Your task to perform on an android device: turn off smart reply in the gmail app Image 0: 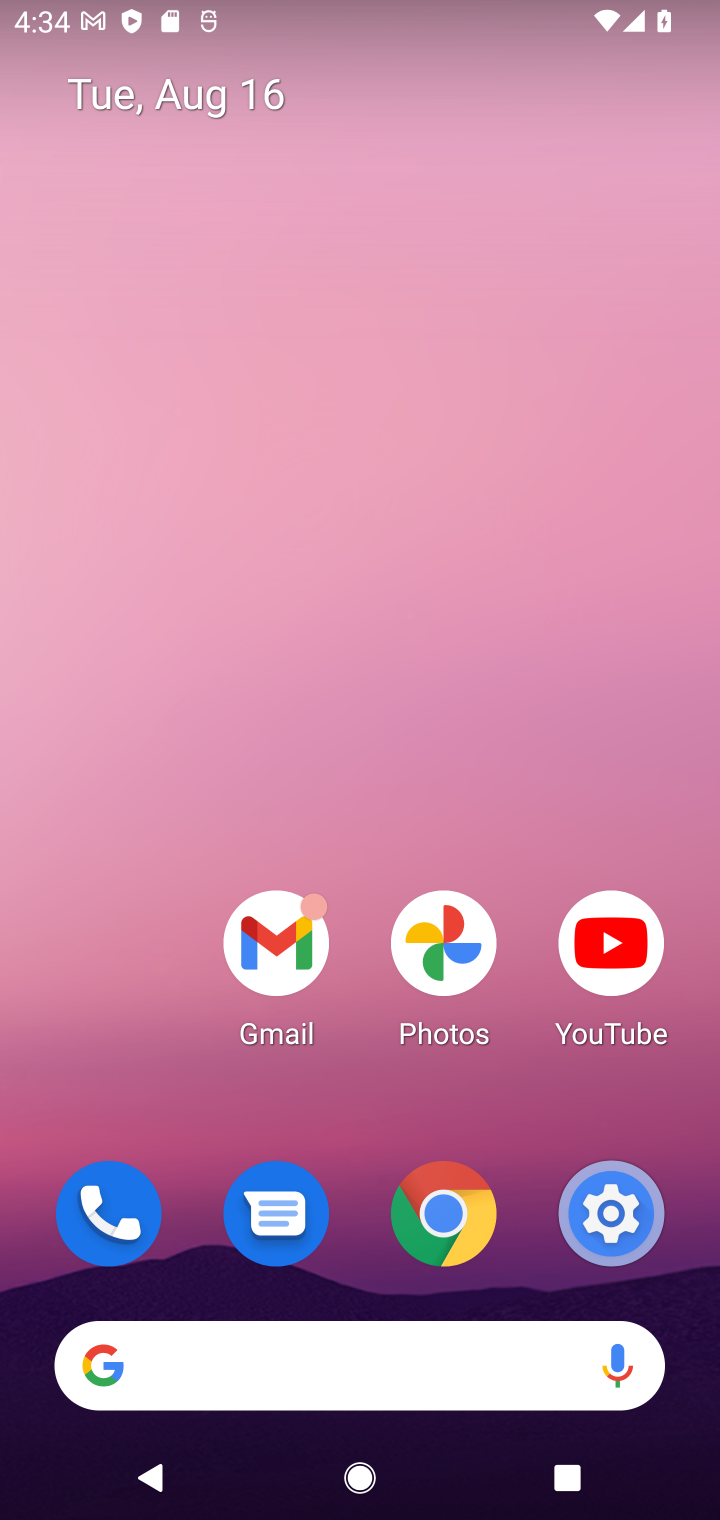
Step 0: drag from (334, 750) to (255, 2)
Your task to perform on an android device: turn off smart reply in the gmail app Image 1: 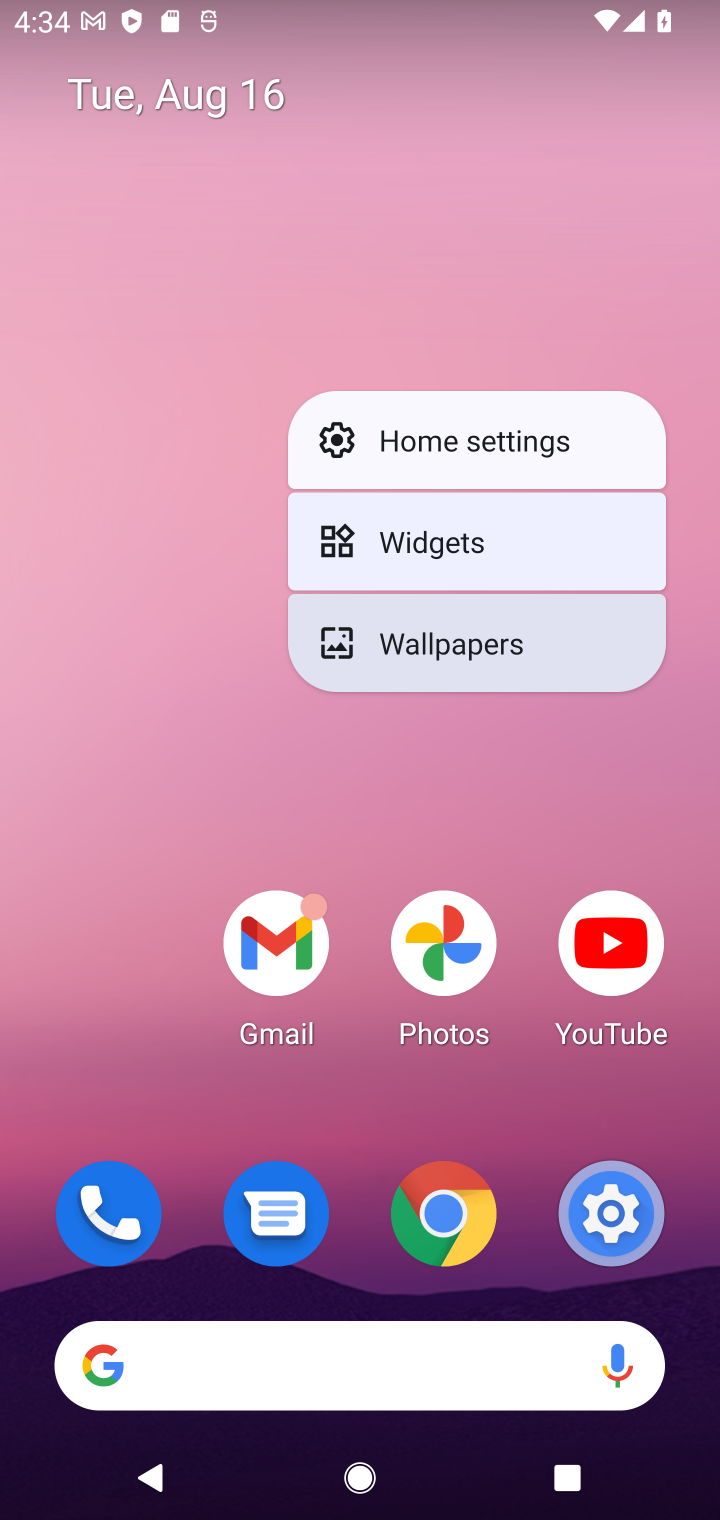
Step 1: click (56, 510)
Your task to perform on an android device: turn off smart reply in the gmail app Image 2: 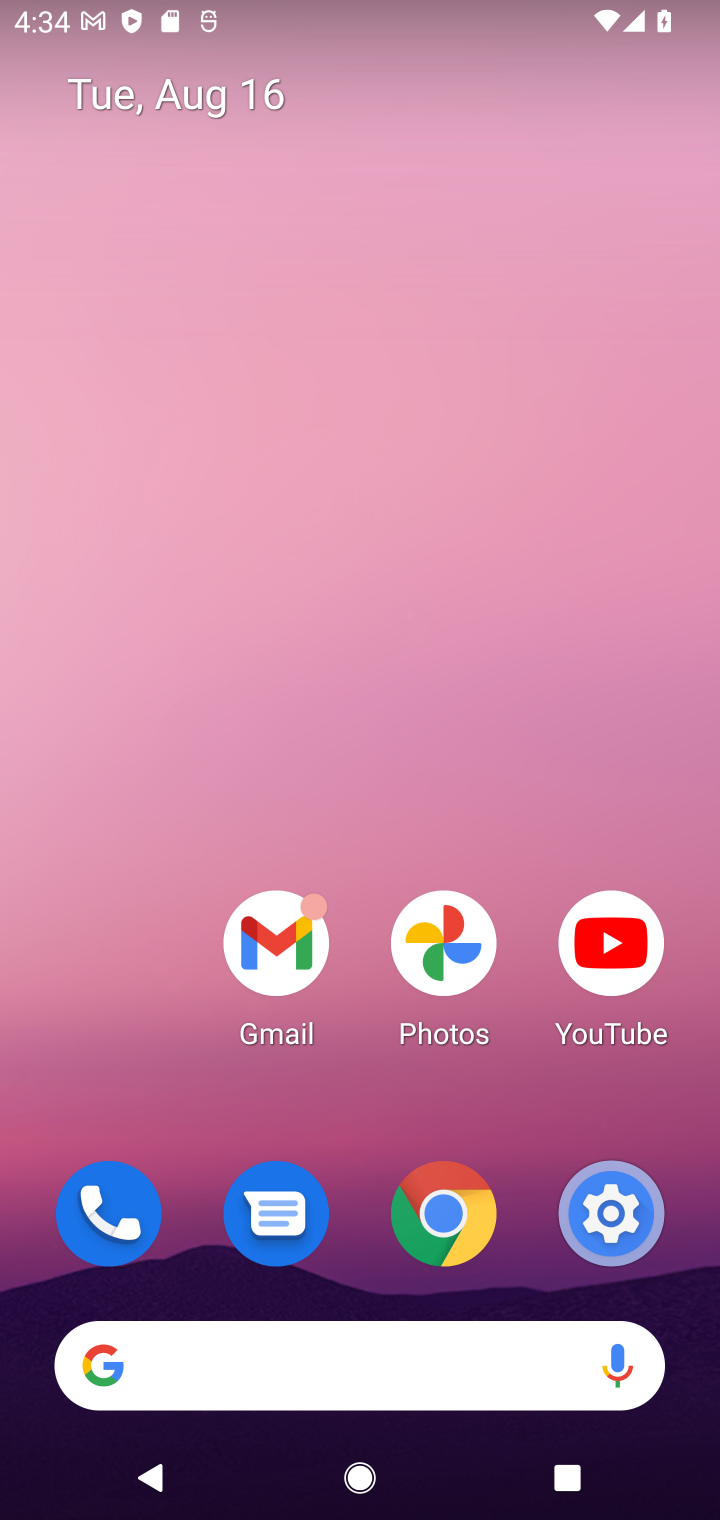
Step 2: drag from (198, 1106) to (103, 186)
Your task to perform on an android device: turn off smart reply in the gmail app Image 3: 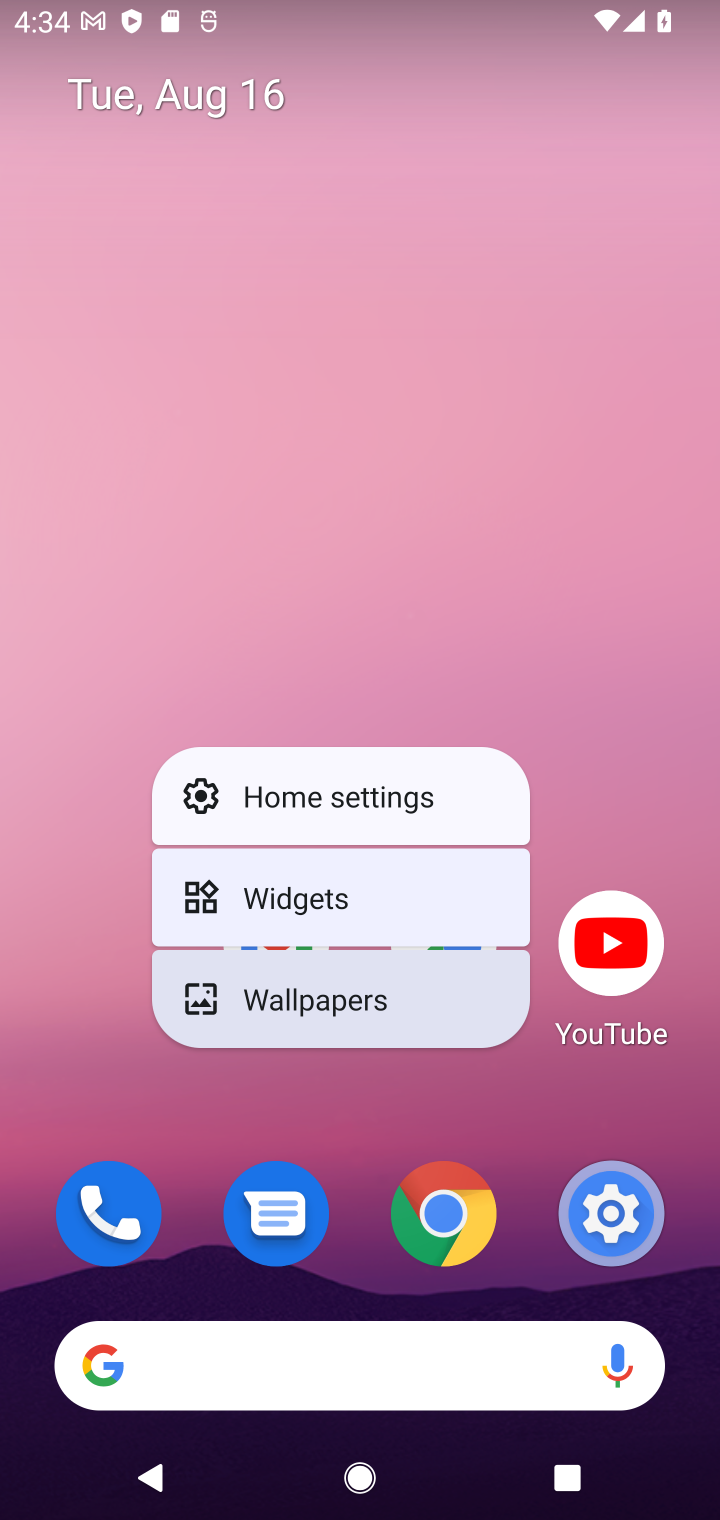
Step 3: click (112, 445)
Your task to perform on an android device: turn off smart reply in the gmail app Image 4: 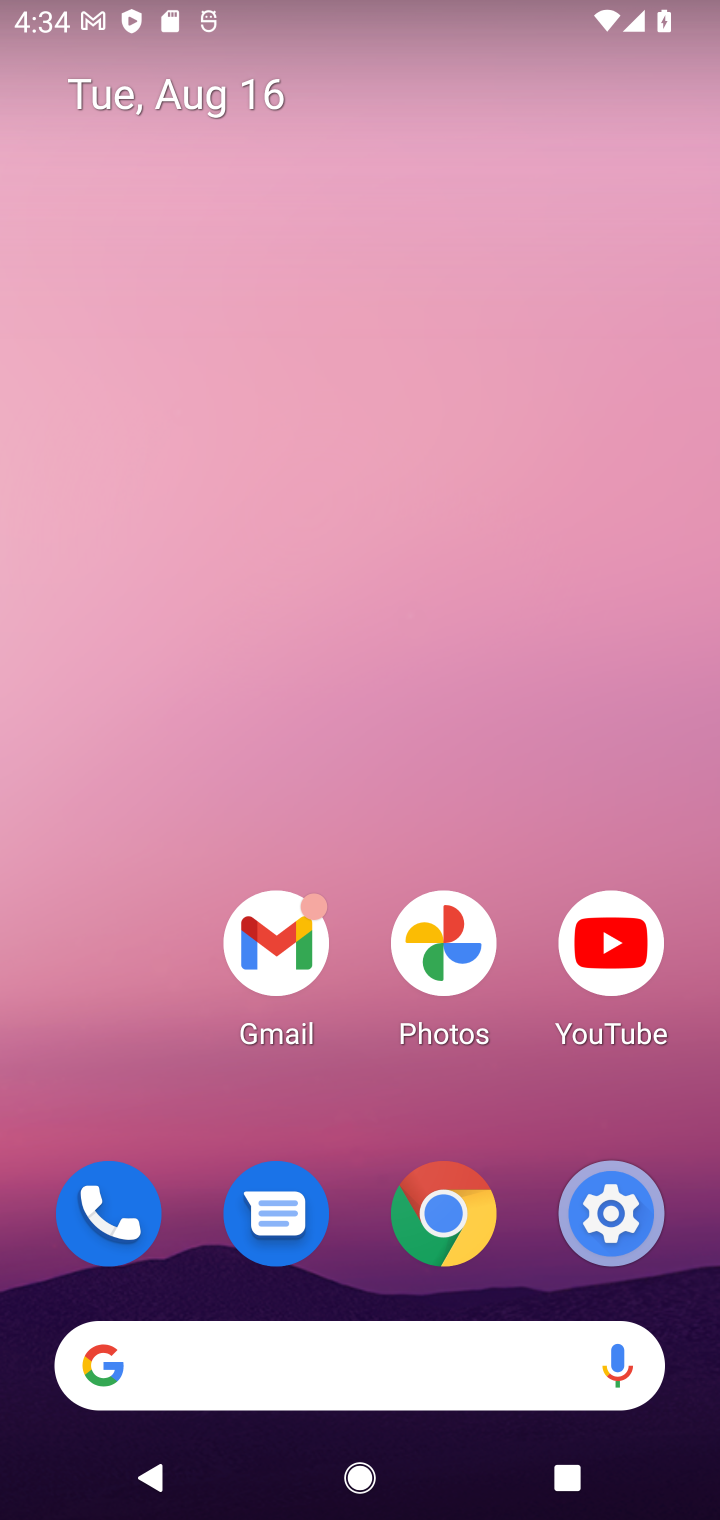
Step 4: drag from (209, 1027) to (224, 276)
Your task to perform on an android device: turn off smart reply in the gmail app Image 5: 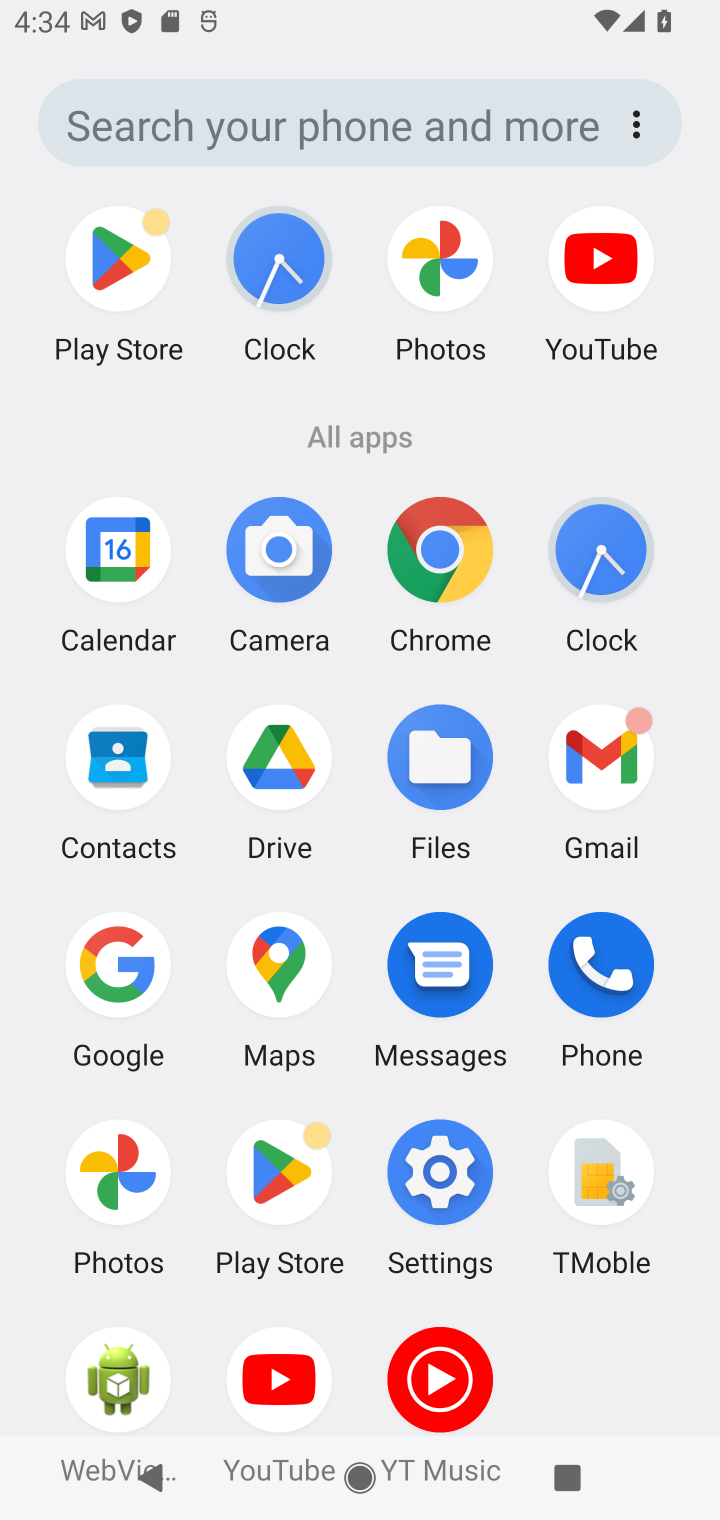
Step 5: click (590, 753)
Your task to perform on an android device: turn off smart reply in the gmail app Image 6: 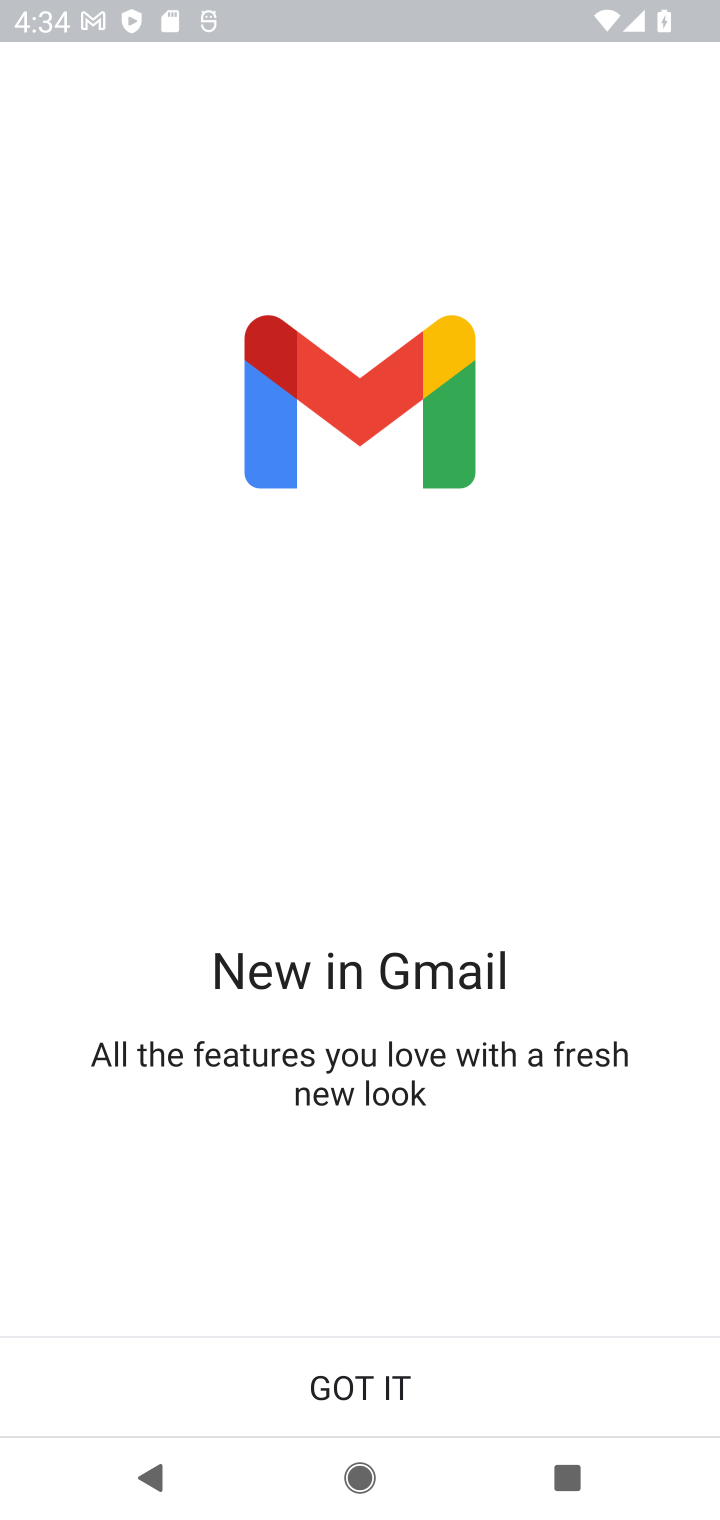
Step 6: click (461, 1385)
Your task to perform on an android device: turn off smart reply in the gmail app Image 7: 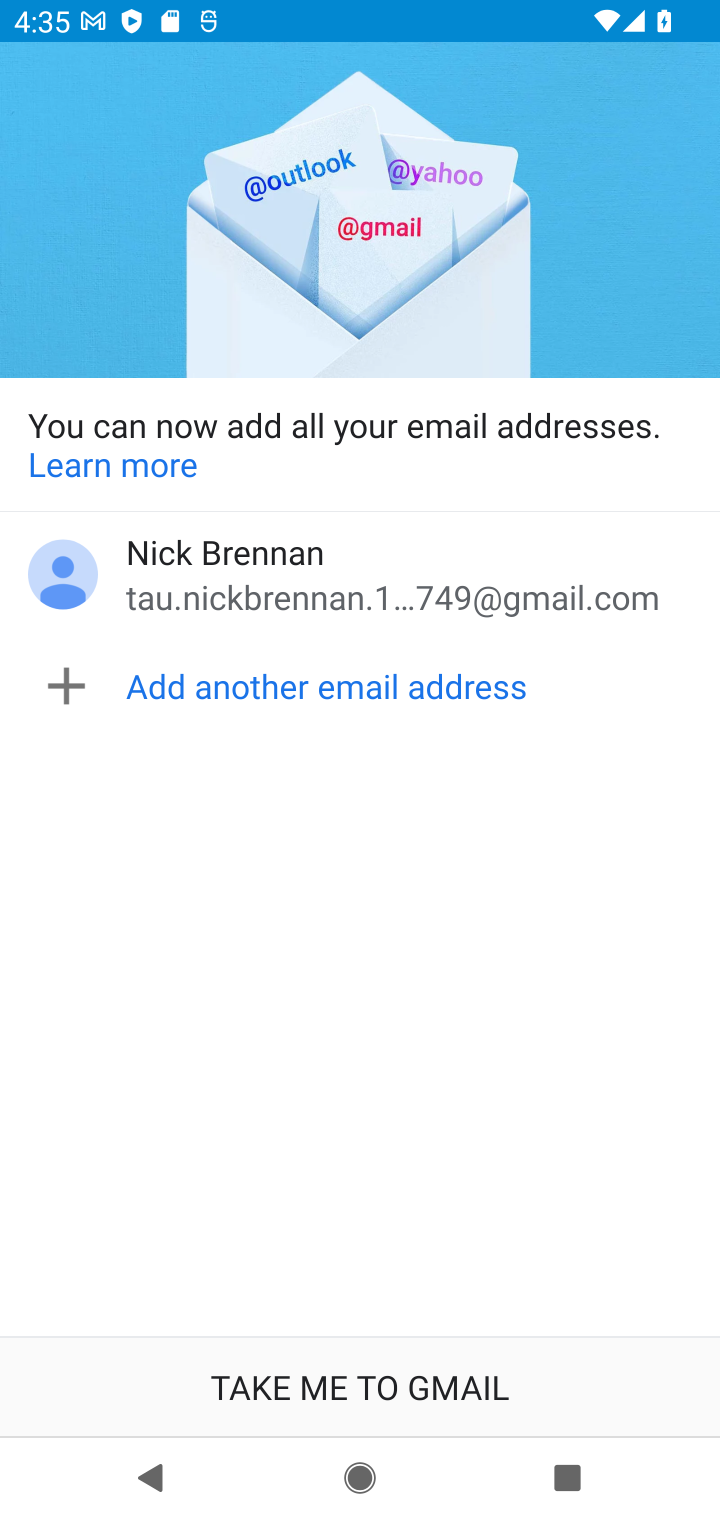
Step 7: click (396, 1371)
Your task to perform on an android device: turn off smart reply in the gmail app Image 8: 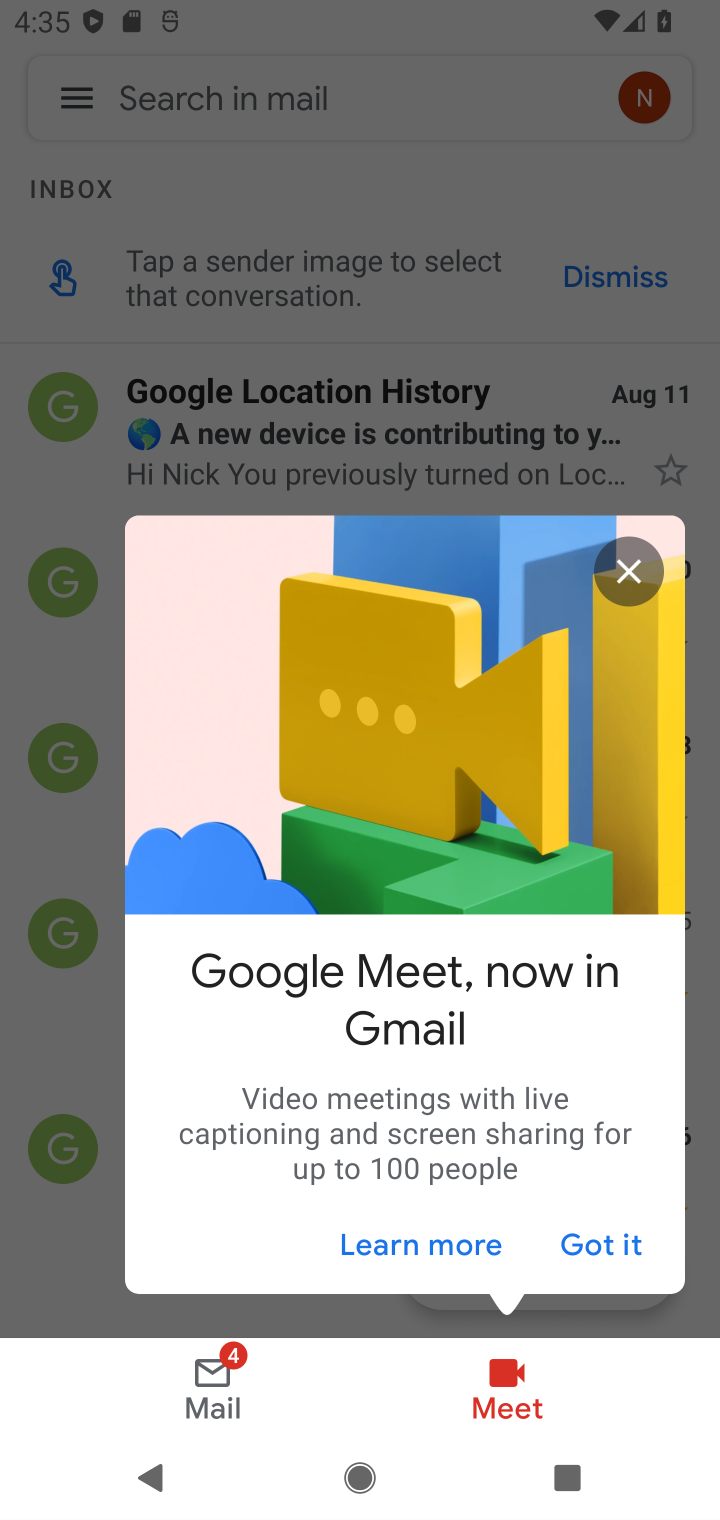
Step 8: click (632, 580)
Your task to perform on an android device: turn off smart reply in the gmail app Image 9: 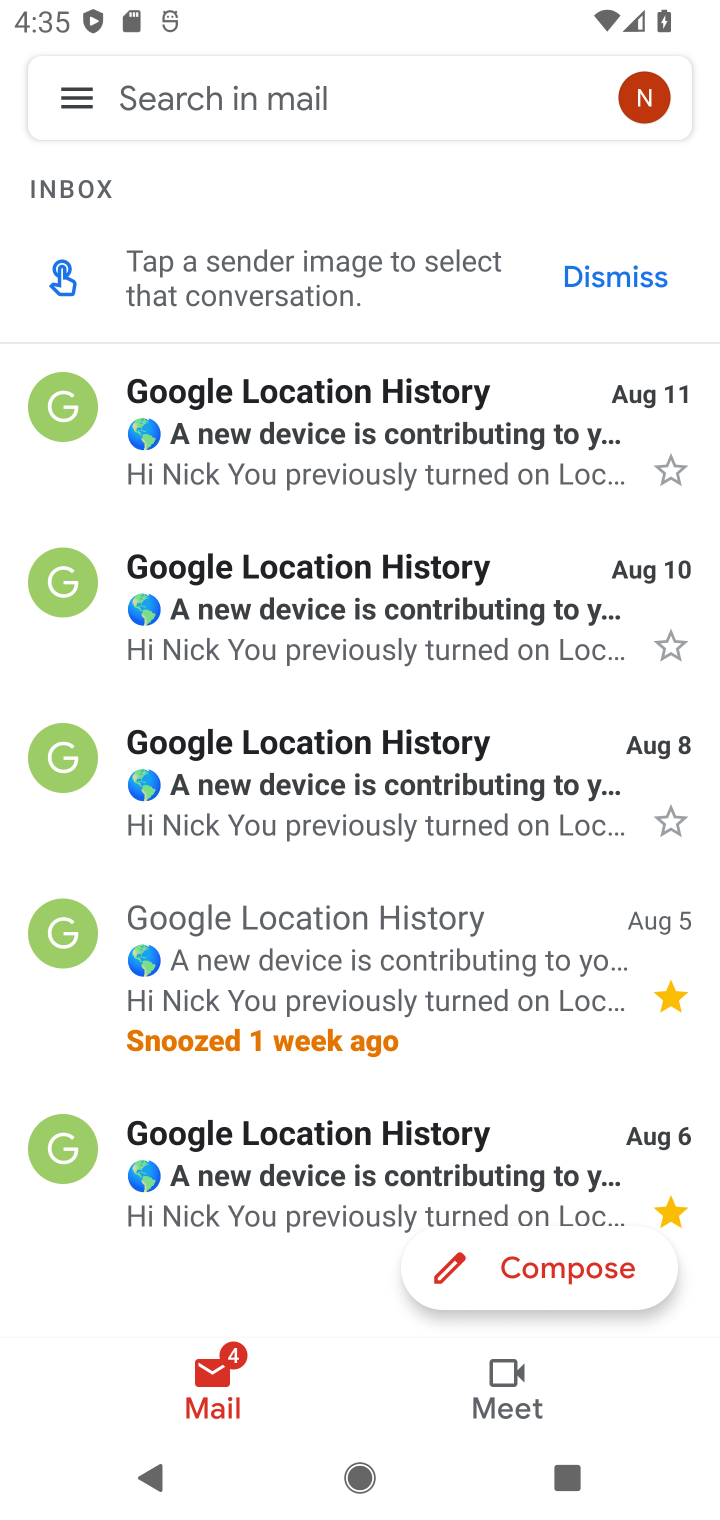
Step 9: click (64, 99)
Your task to perform on an android device: turn off smart reply in the gmail app Image 10: 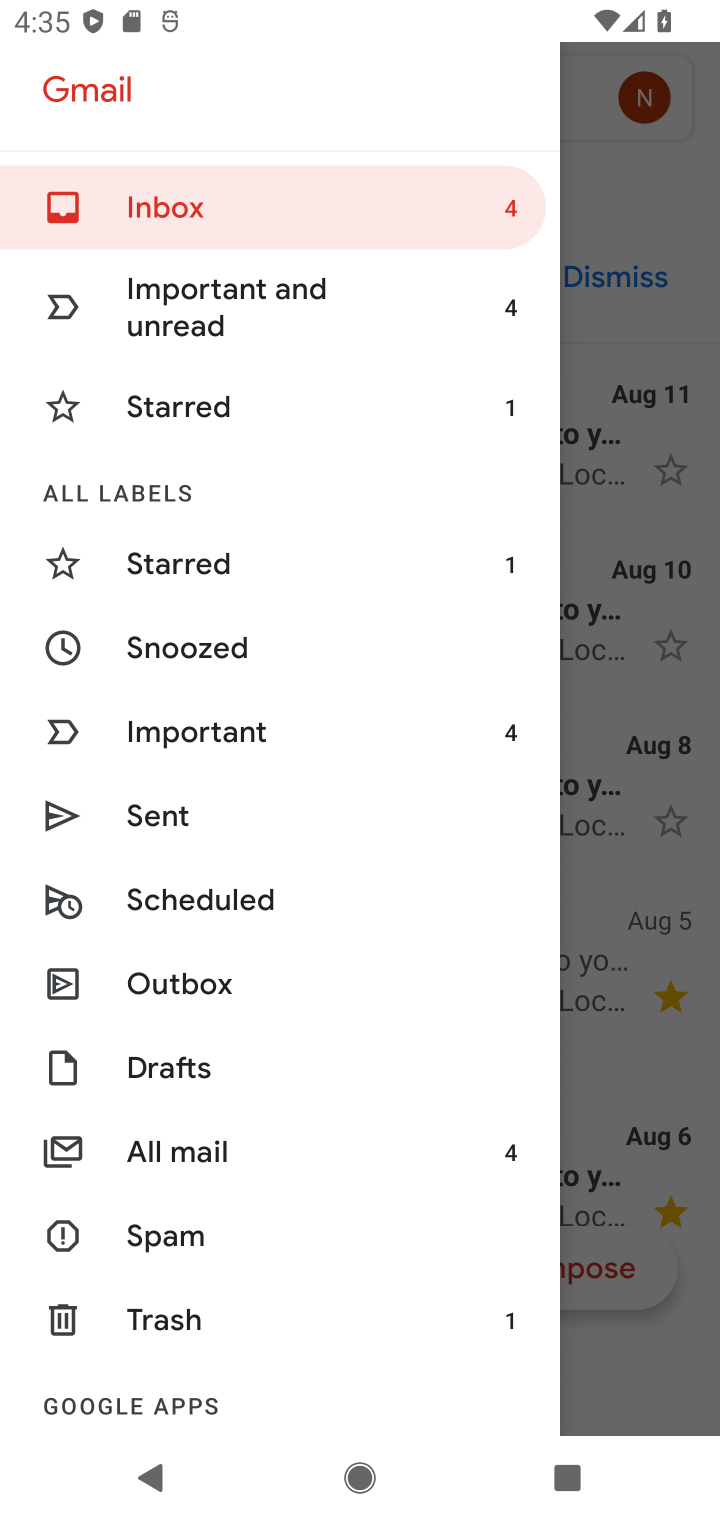
Step 10: drag from (245, 1344) to (257, 472)
Your task to perform on an android device: turn off smart reply in the gmail app Image 11: 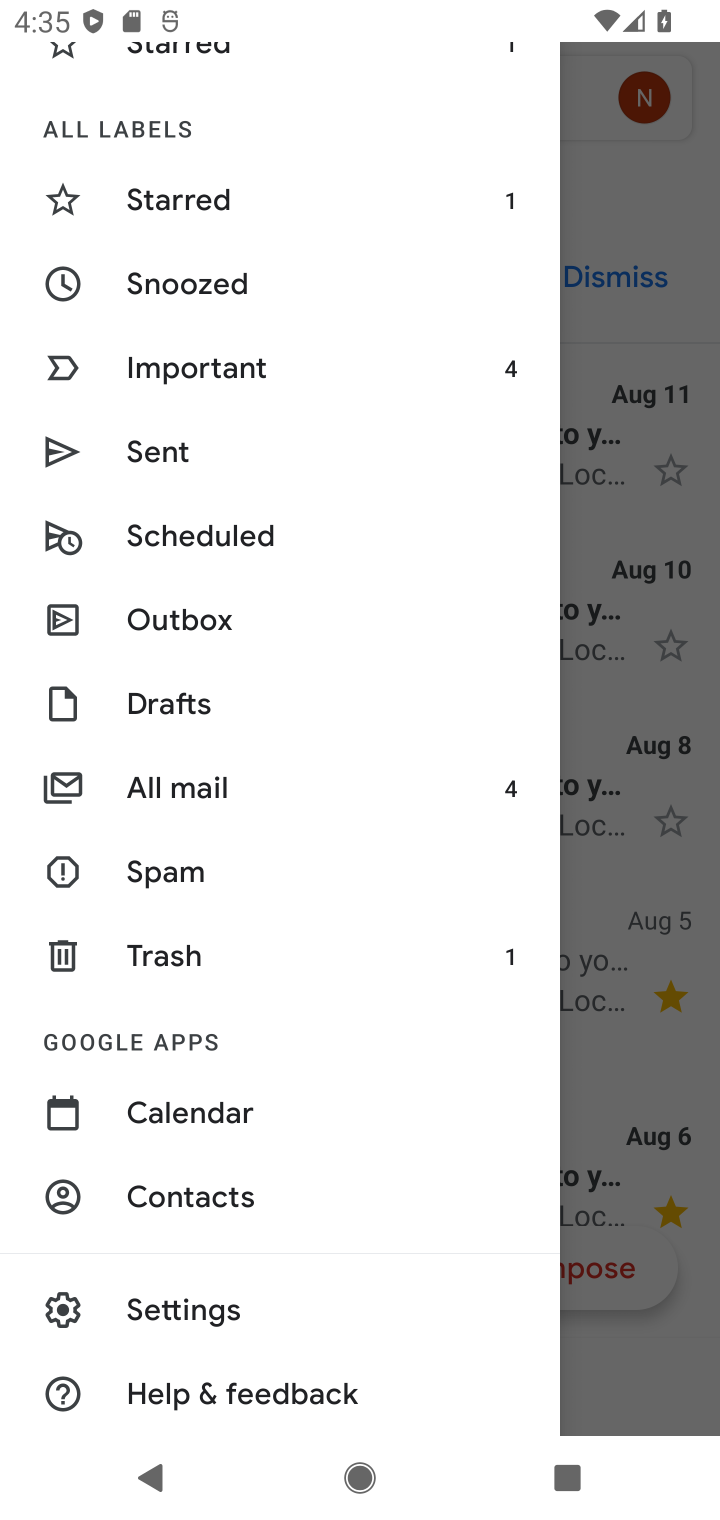
Step 11: click (176, 1326)
Your task to perform on an android device: turn off smart reply in the gmail app Image 12: 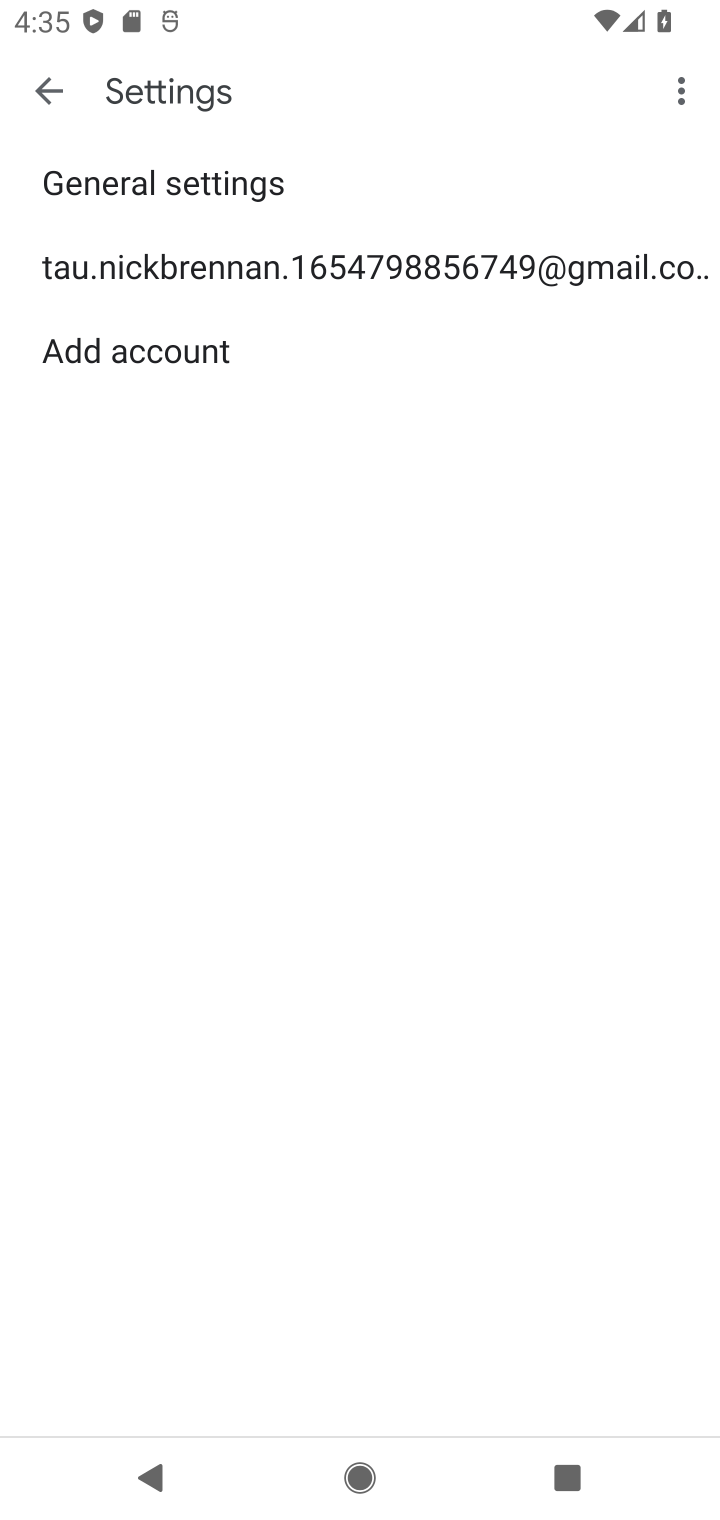
Step 12: click (363, 284)
Your task to perform on an android device: turn off smart reply in the gmail app Image 13: 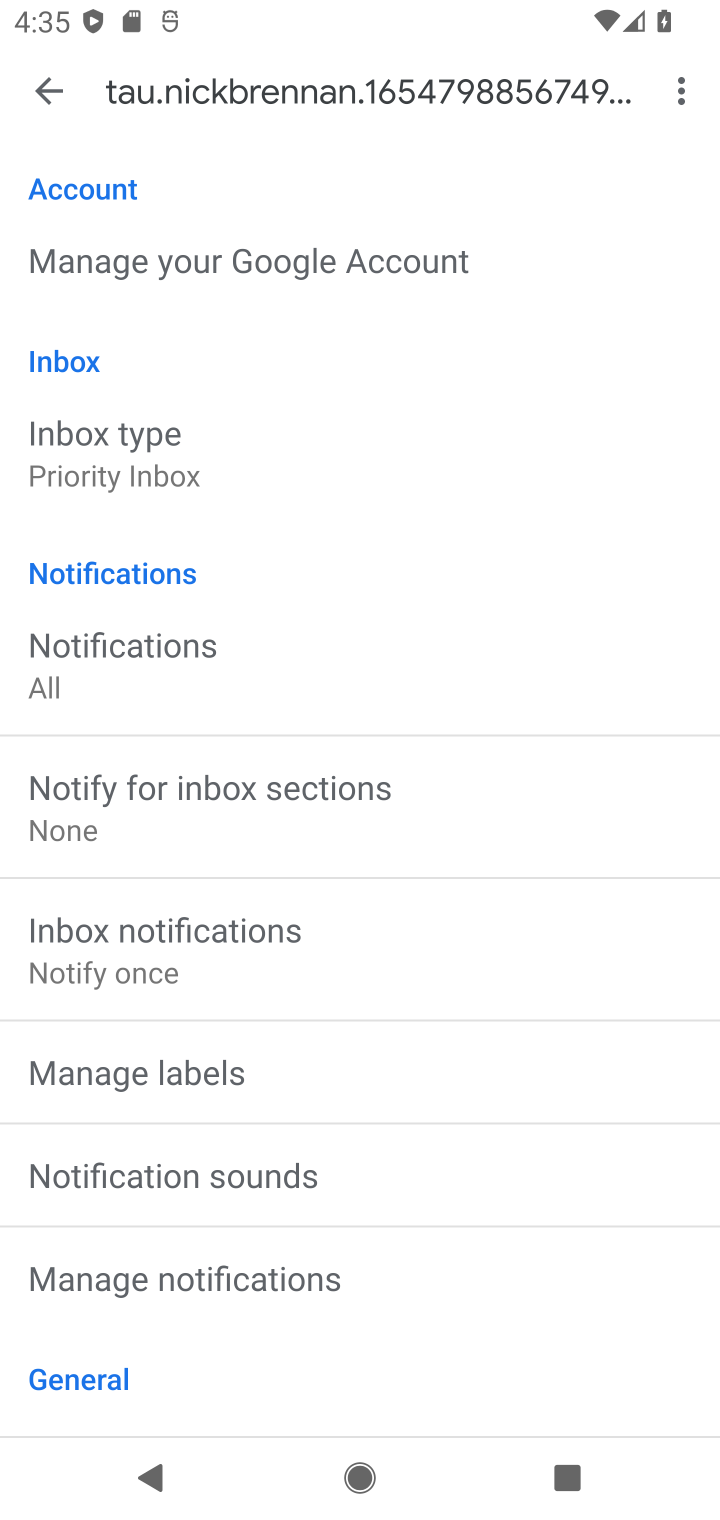
Step 13: drag from (514, 1082) to (499, 380)
Your task to perform on an android device: turn off smart reply in the gmail app Image 14: 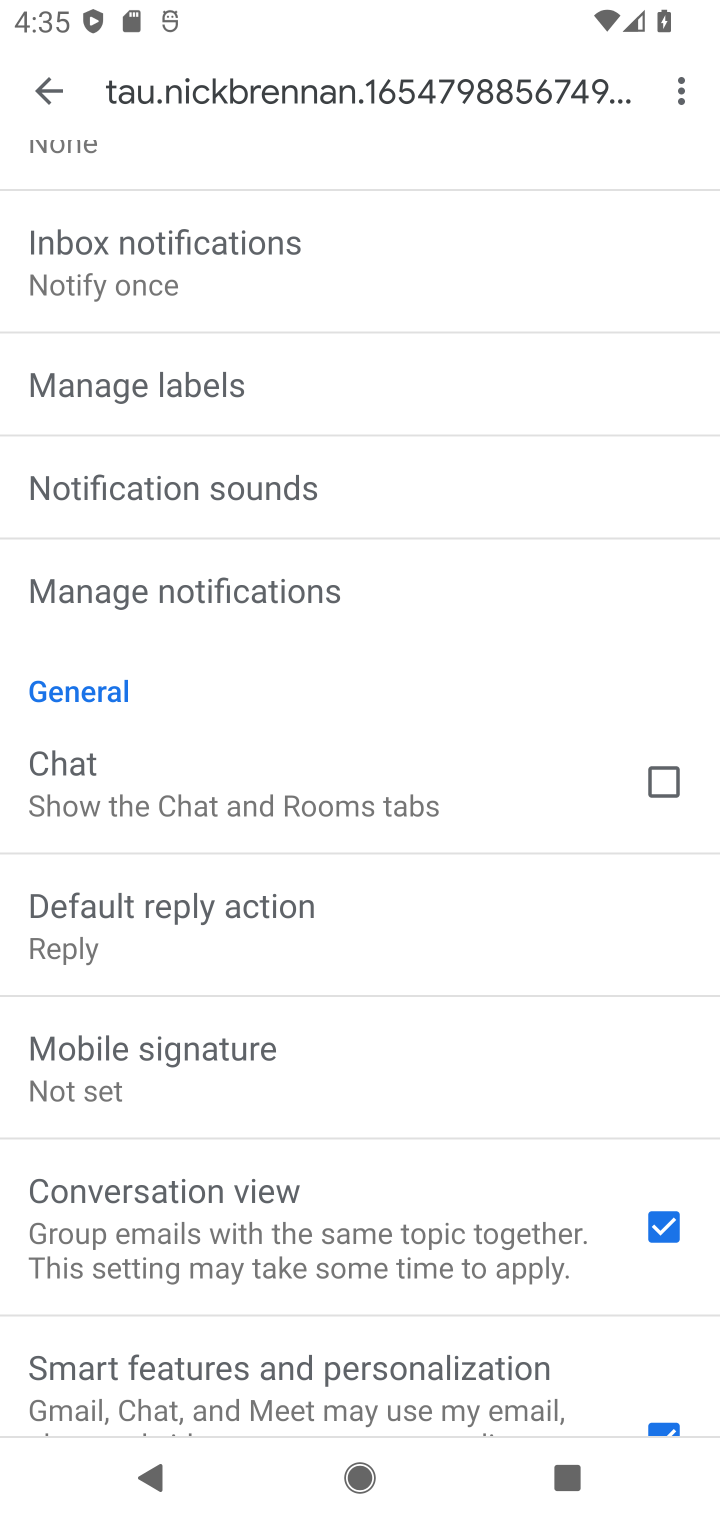
Step 14: drag from (322, 1073) to (368, 345)
Your task to perform on an android device: turn off smart reply in the gmail app Image 15: 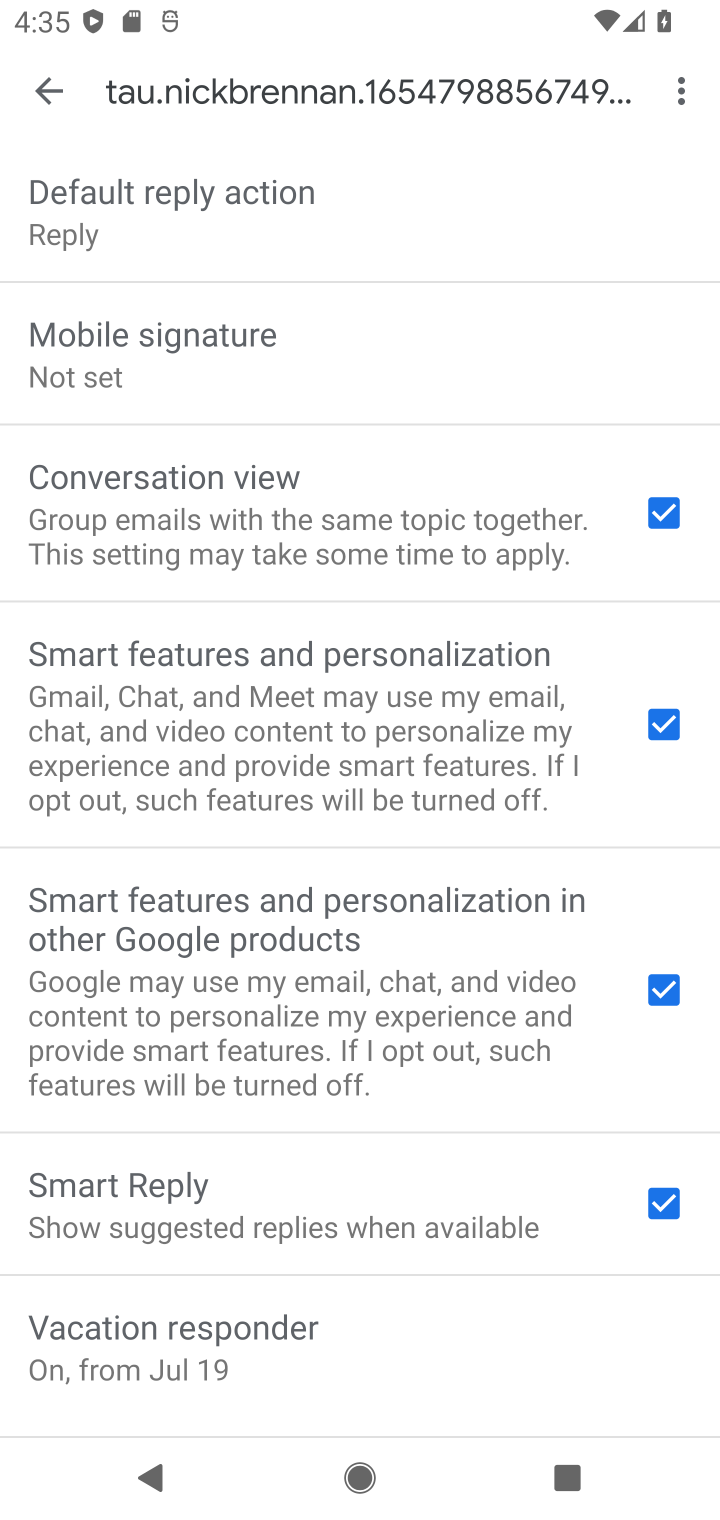
Step 15: click (662, 1198)
Your task to perform on an android device: turn off smart reply in the gmail app Image 16: 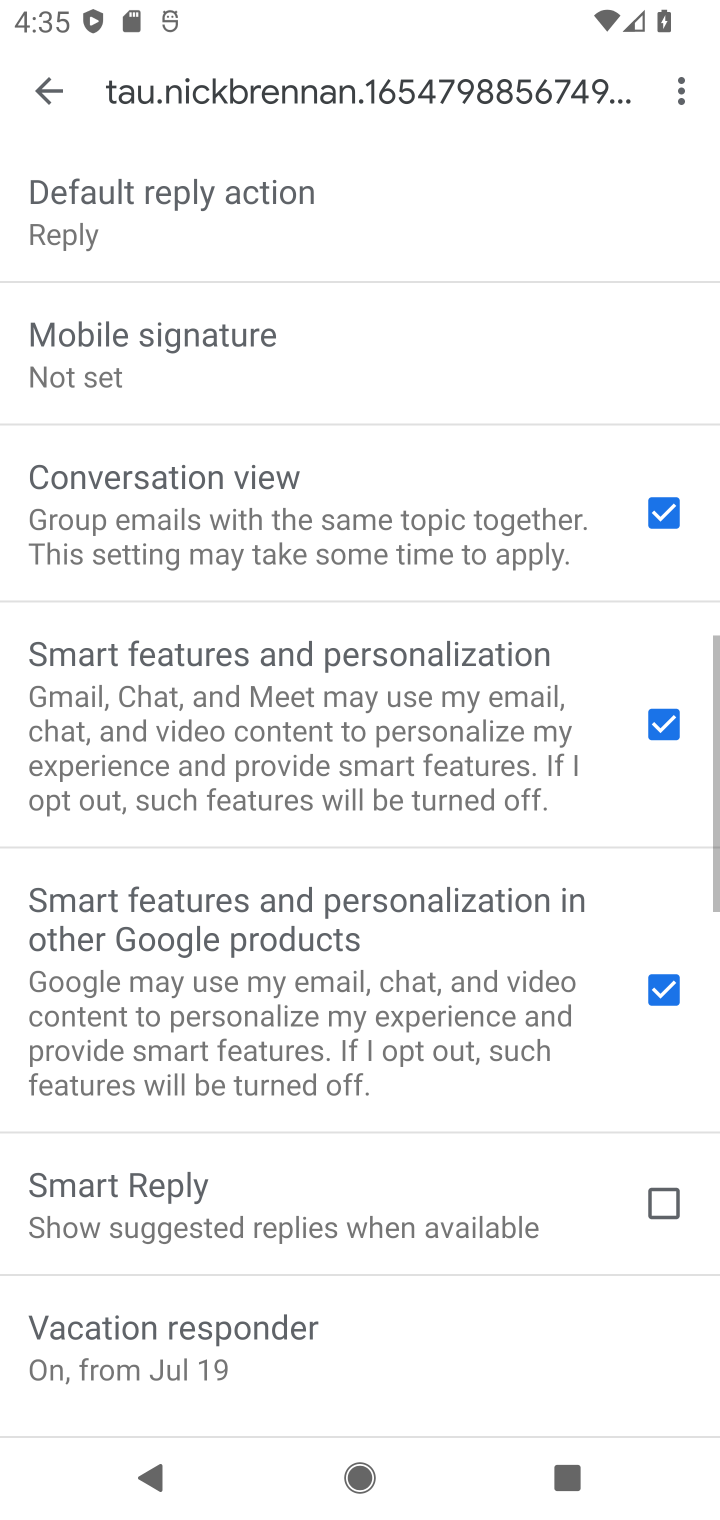
Step 16: task complete